Your task to perform on an android device: Do I have any events today? Image 0: 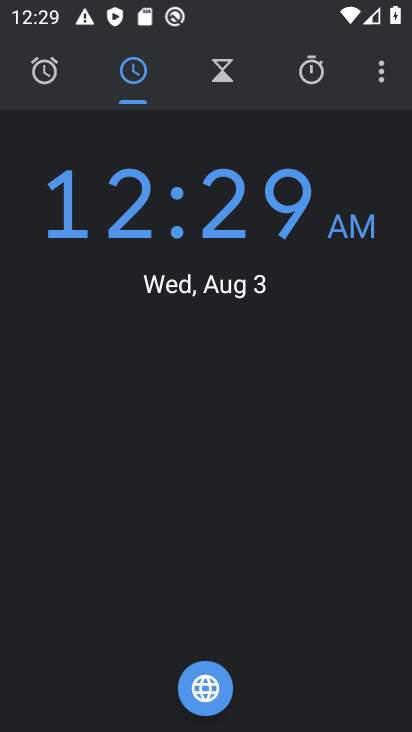
Step 0: press home button
Your task to perform on an android device: Do I have any events today? Image 1: 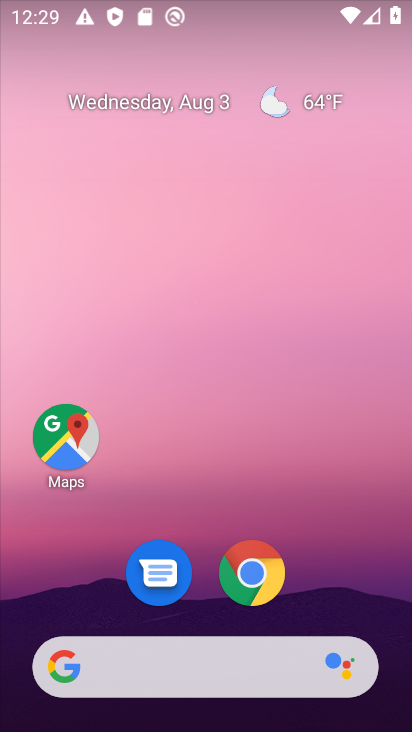
Step 1: drag from (211, 632) to (242, 58)
Your task to perform on an android device: Do I have any events today? Image 2: 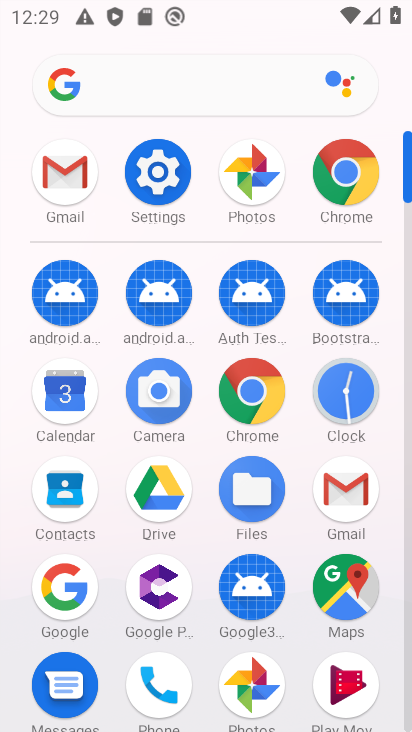
Step 2: click (67, 385)
Your task to perform on an android device: Do I have any events today? Image 3: 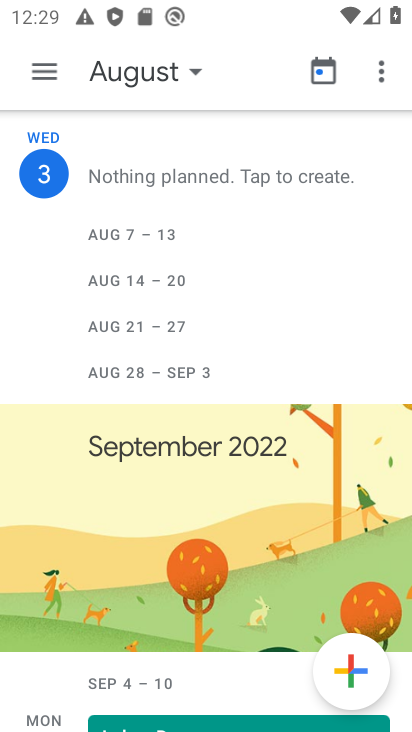
Step 3: click (56, 70)
Your task to perform on an android device: Do I have any events today? Image 4: 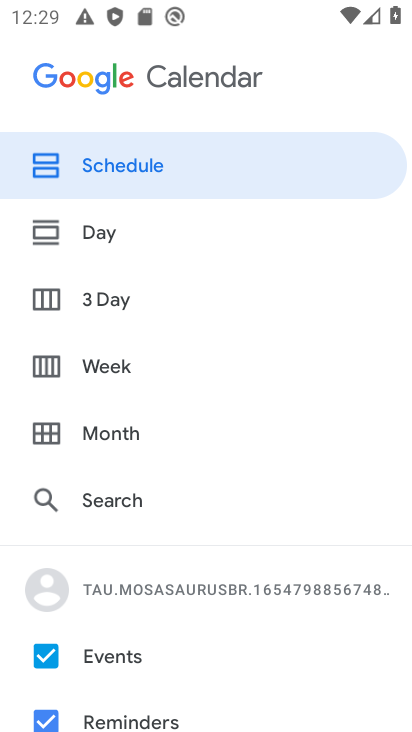
Step 4: drag from (141, 617) to (238, 137)
Your task to perform on an android device: Do I have any events today? Image 5: 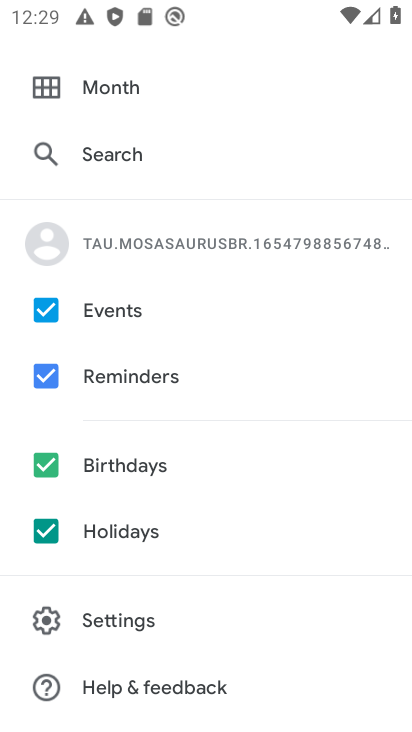
Step 5: click (49, 534)
Your task to perform on an android device: Do I have any events today? Image 6: 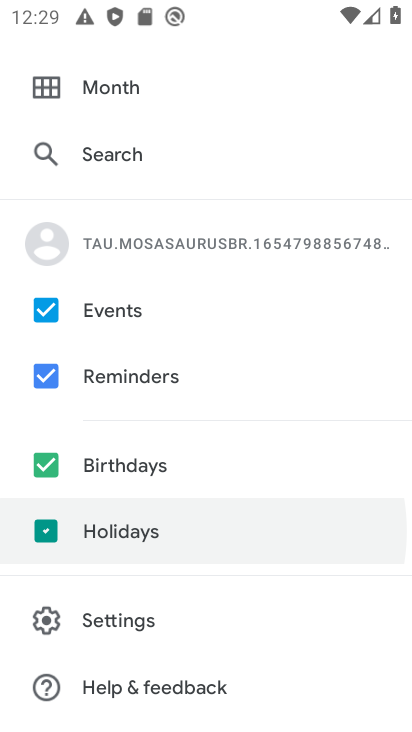
Step 6: click (56, 468)
Your task to perform on an android device: Do I have any events today? Image 7: 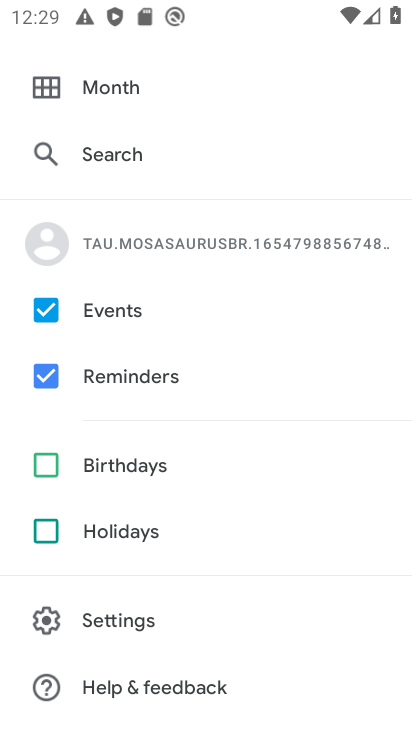
Step 7: task complete